Your task to perform on an android device: Open battery settings Image 0: 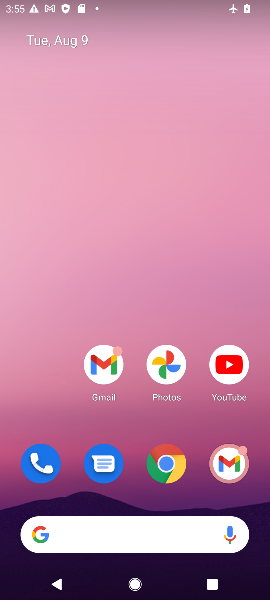
Step 0: drag from (99, 523) to (94, 183)
Your task to perform on an android device: Open battery settings Image 1: 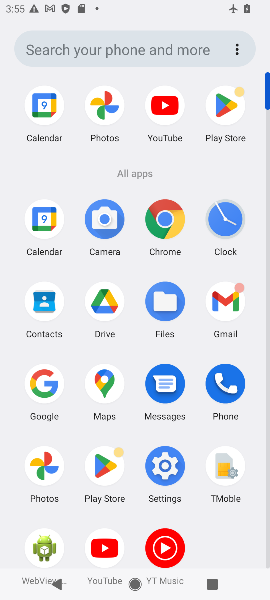
Step 1: click (156, 470)
Your task to perform on an android device: Open battery settings Image 2: 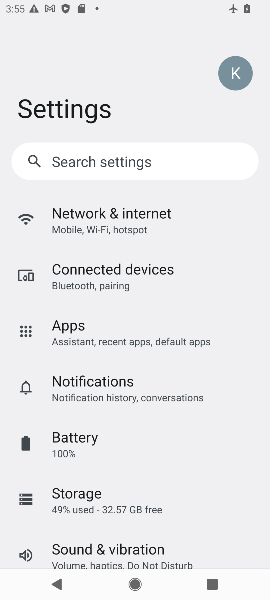
Step 2: click (81, 446)
Your task to perform on an android device: Open battery settings Image 3: 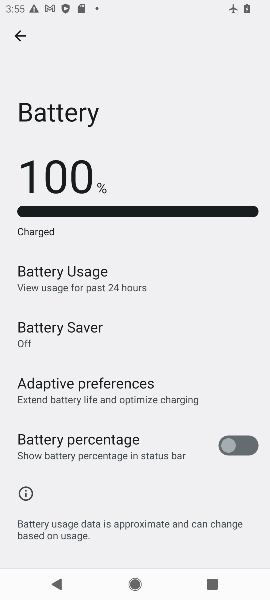
Step 3: task complete